Your task to perform on an android device: set the timer Image 0: 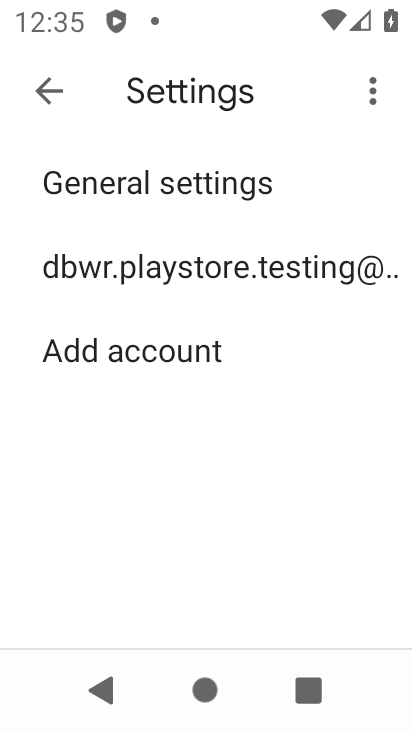
Step 0: press back button
Your task to perform on an android device: set the timer Image 1: 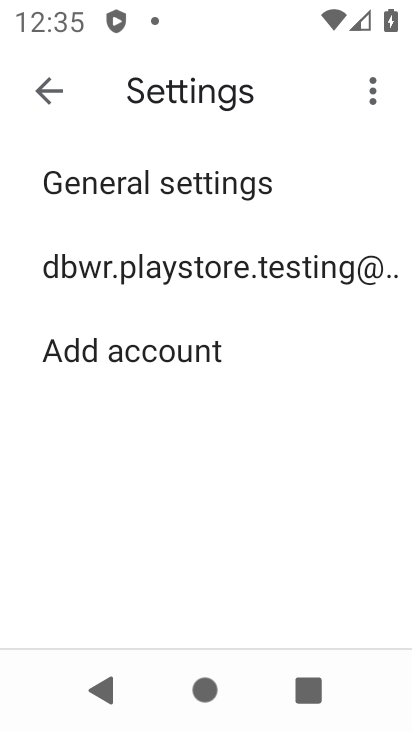
Step 1: press back button
Your task to perform on an android device: set the timer Image 2: 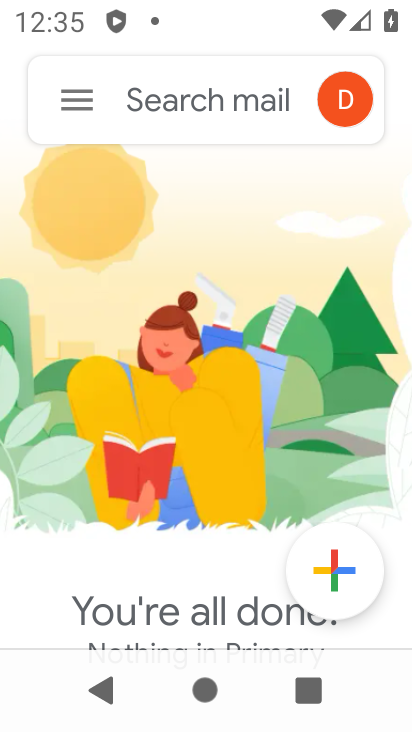
Step 2: press home button
Your task to perform on an android device: set the timer Image 3: 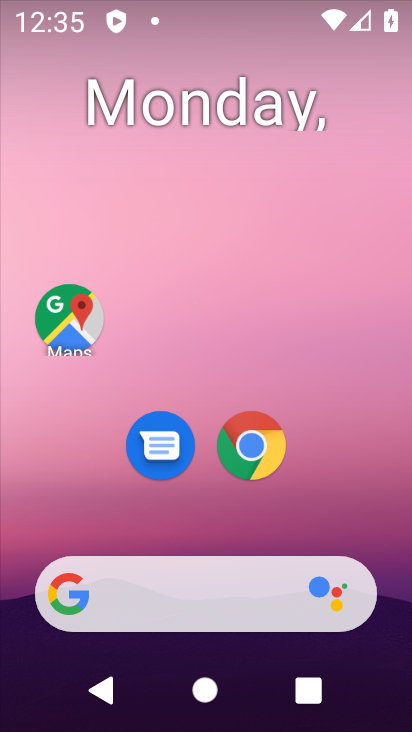
Step 3: drag from (371, 571) to (219, 81)
Your task to perform on an android device: set the timer Image 4: 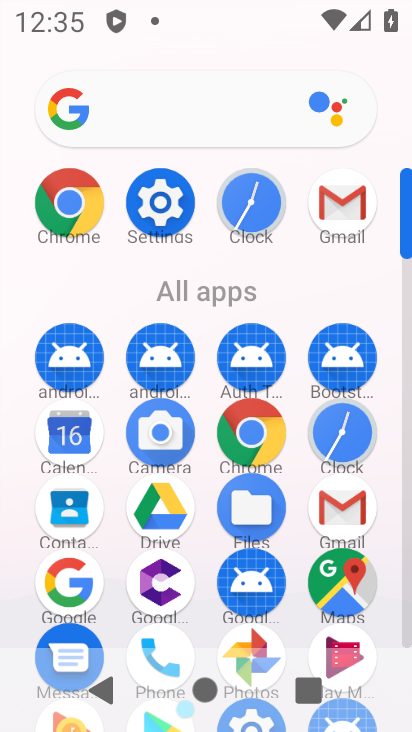
Step 4: click (245, 213)
Your task to perform on an android device: set the timer Image 5: 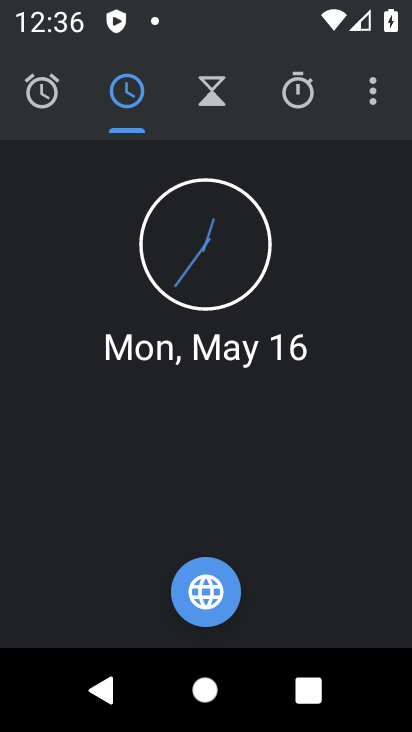
Step 5: click (210, 99)
Your task to perform on an android device: set the timer Image 6: 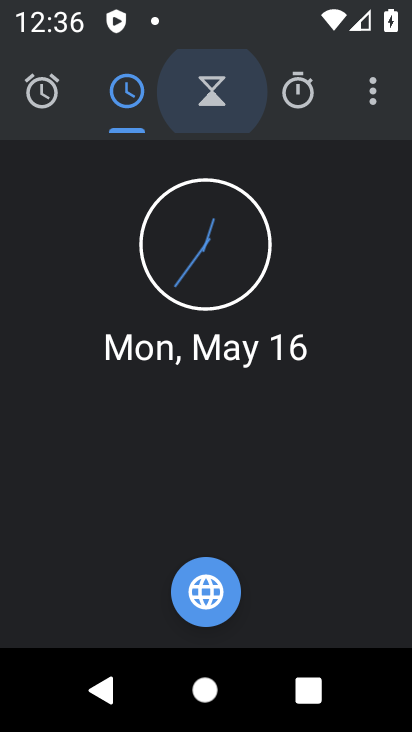
Step 6: click (210, 99)
Your task to perform on an android device: set the timer Image 7: 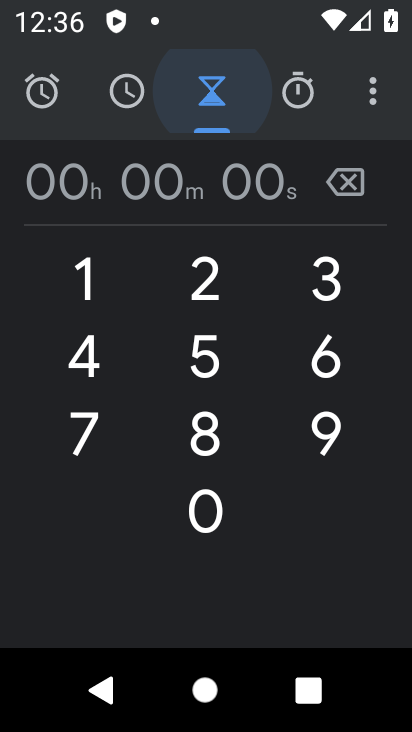
Step 7: click (210, 99)
Your task to perform on an android device: set the timer Image 8: 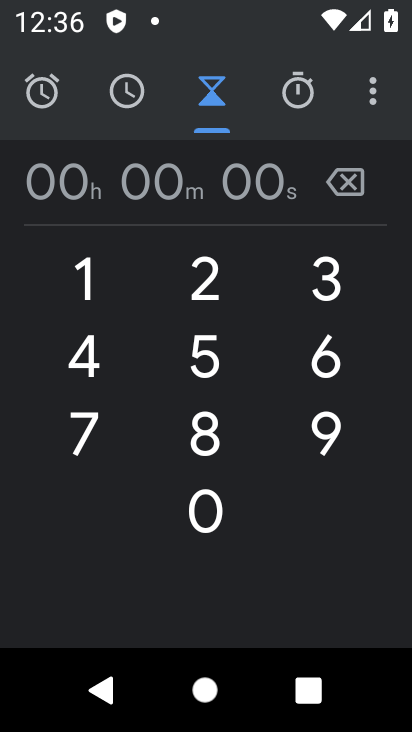
Step 8: click (205, 438)
Your task to perform on an android device: set the timer Image 9: 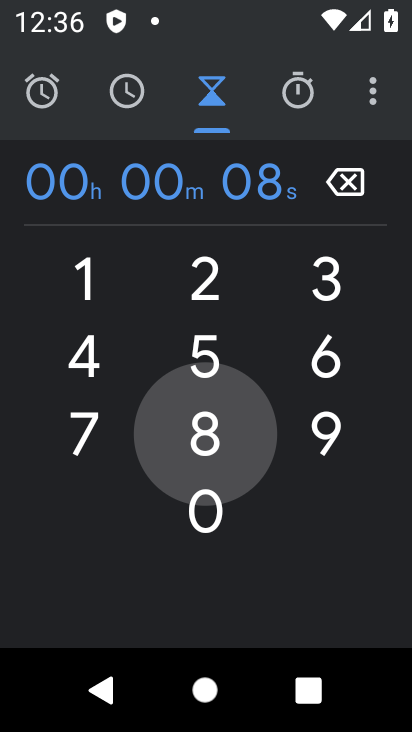
Step 9: click (205, 438)
Your task to perform on an android device: set the timer Image 10: 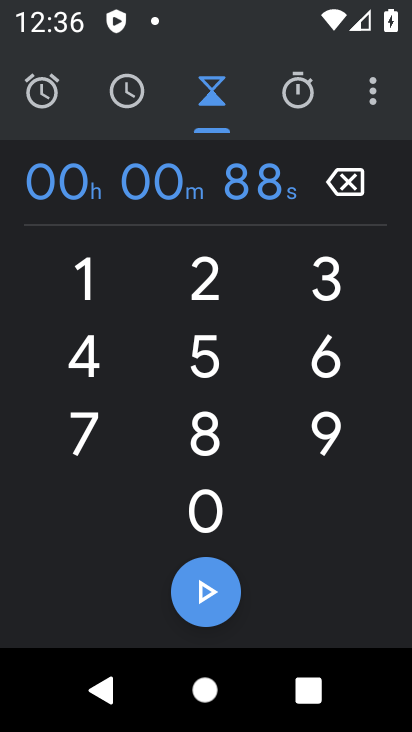
Step 10: click (210, 593)
Your task to perform on an android device: set the timer Image 11: 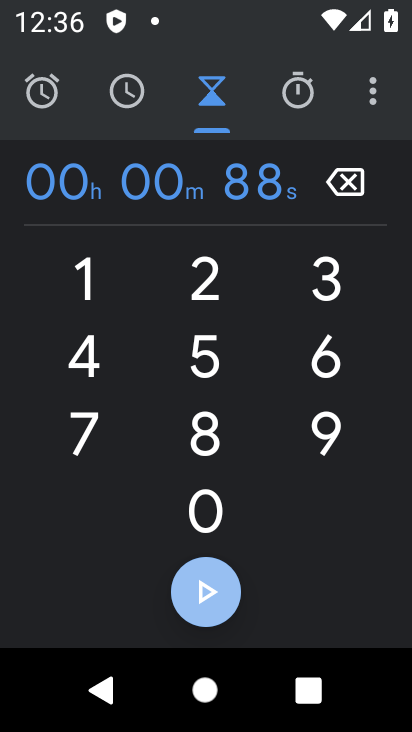
Step 11: click (211, 591)
Your task to perform on an android device: set the timer Image 12: 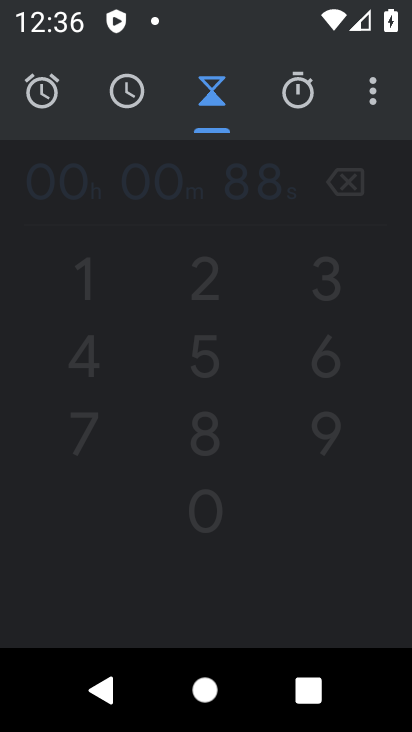
Step 12: click (212, 590)
Your task to perform on an android device: set the timer Image 13: 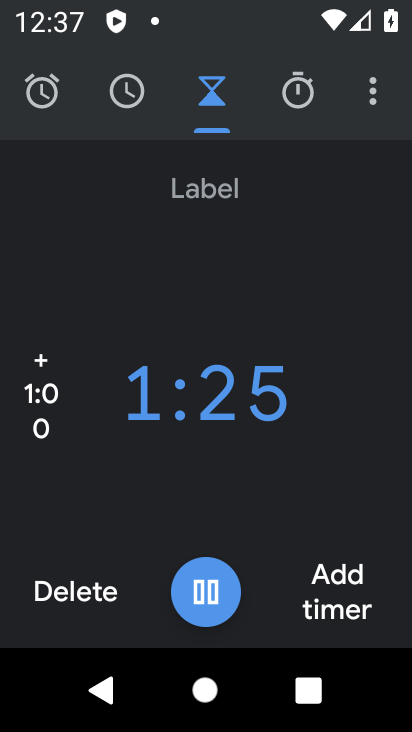
Step 13: click (203, 590)
Your task to perform on an android device: set the timer Image 14: 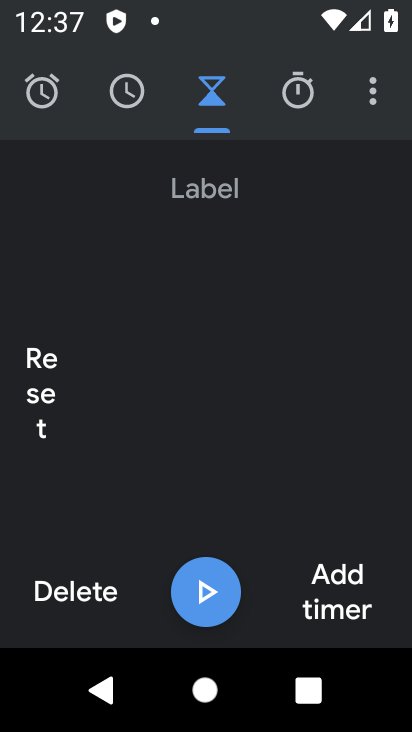
Step 14: task complete